Your task to perform on an android device: delete location history Image 0: 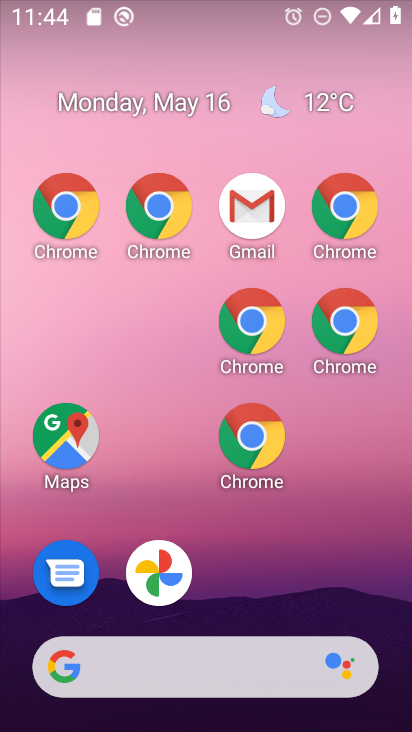
Step 0: drag from (400, 602) to (286, 295)
Your task to perform on an android device: delete location history Image 1: 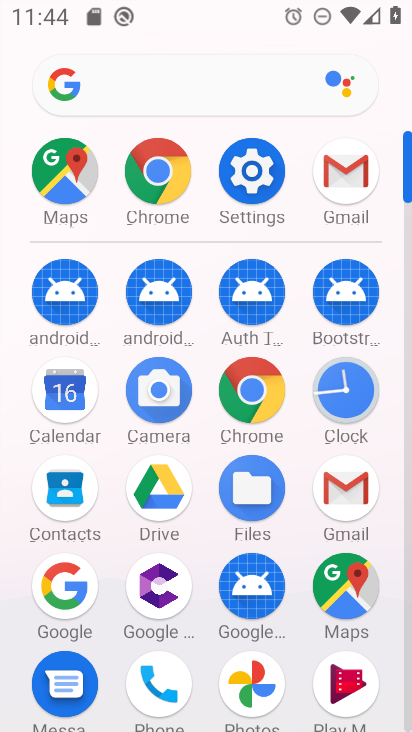
Step 1: click (341, 586)
Your task to perform on an android device: delete location history Image 2: 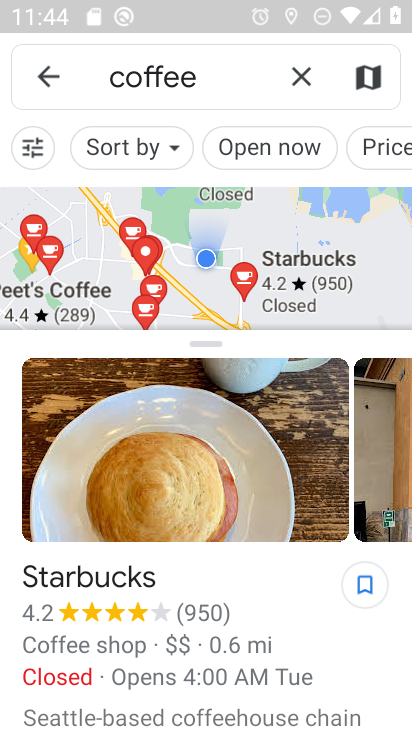
Step 2: click (51, 95)
Your task to perform on an android device: delete location history Image 3: 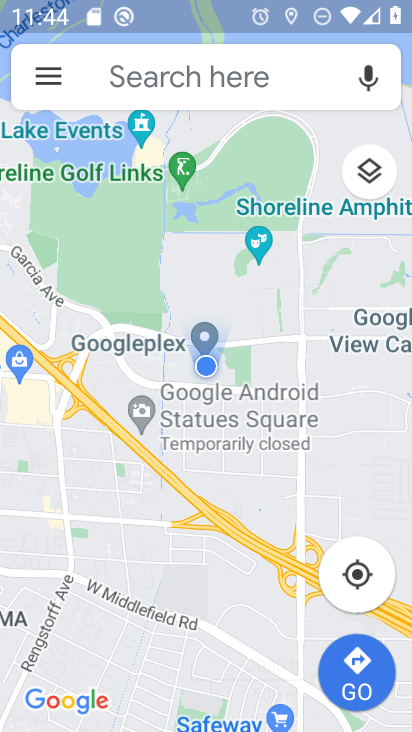
Step 3: click (45, 75)
Your task to perform on an android device: delete location history Image 4: 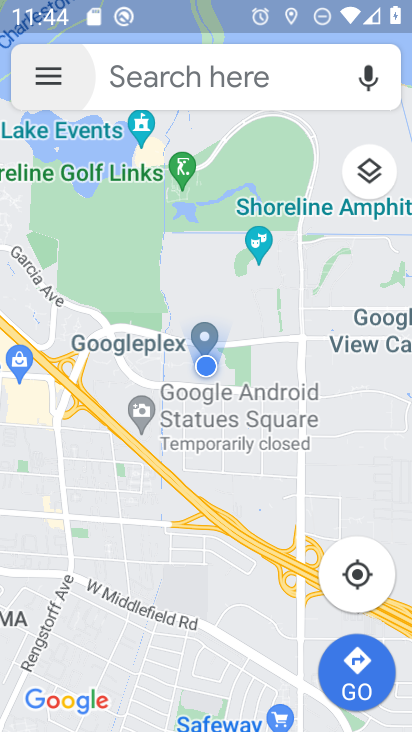
Step 4: click (46, 75)
Your task to perform on an android device: delete location history Image 5: 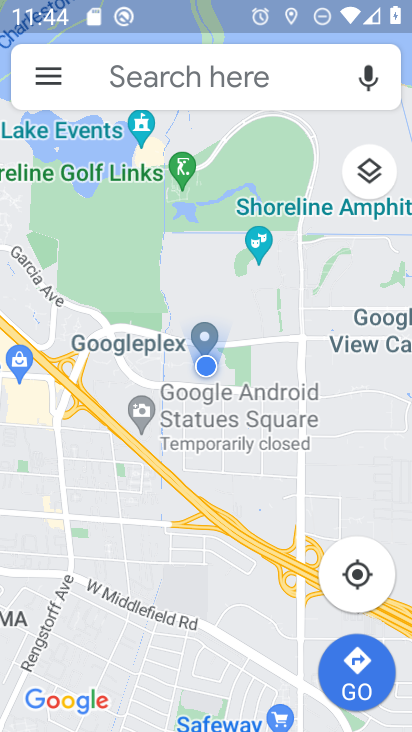
Step 5: click (46, 75)
Your task to perform on an android device: delete location history Image 6: 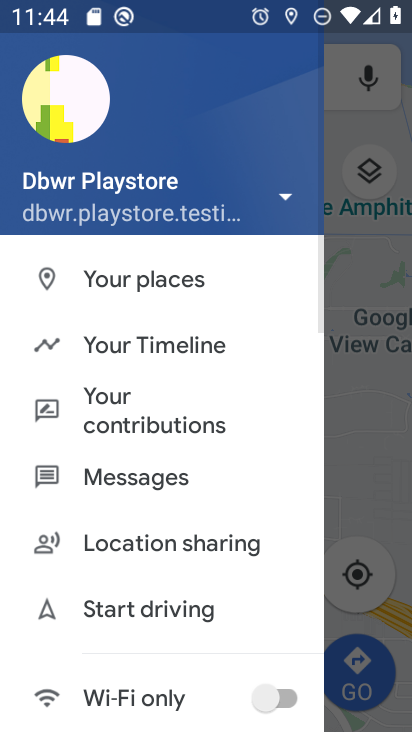
Step 6: click (155, 345)
Your task to perform on an android device: delete location history Image 7: 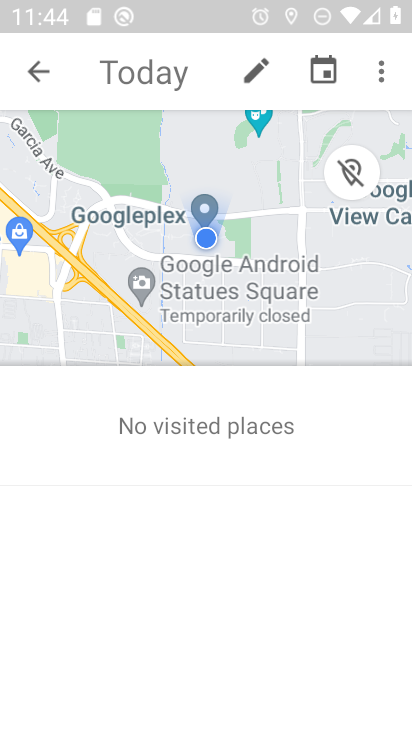
Step 7: click (378, 73)
Your task to perform on an android device: delete location history Image 8: 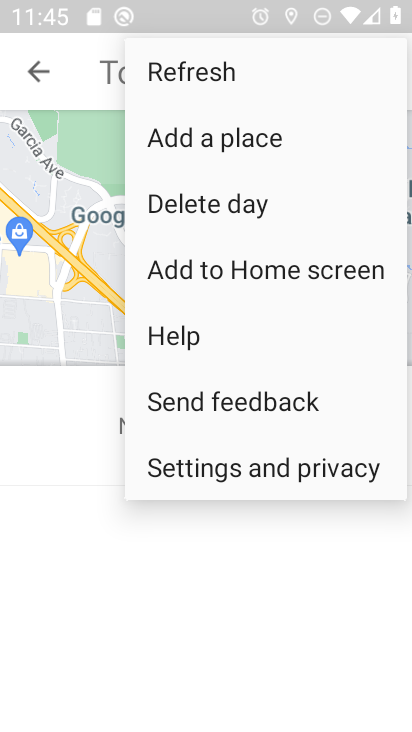
Step 8: click (252, 472)
Your task to perform on an android device: delete location history Image 9: 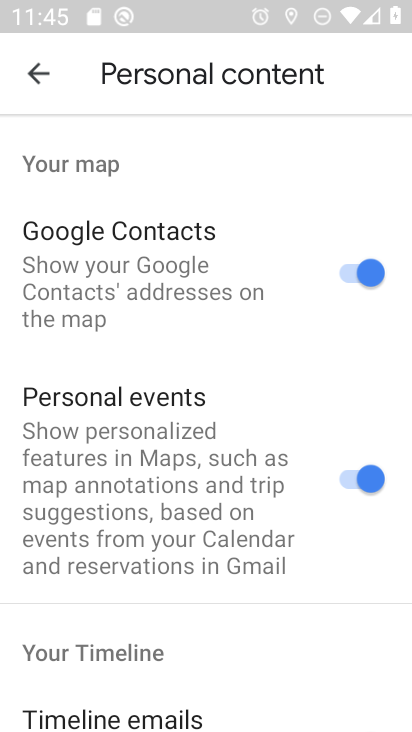
Step 9: drag from (212, 573) to (285, 78)
Your task to perform on an android device: delete location history Image 10: 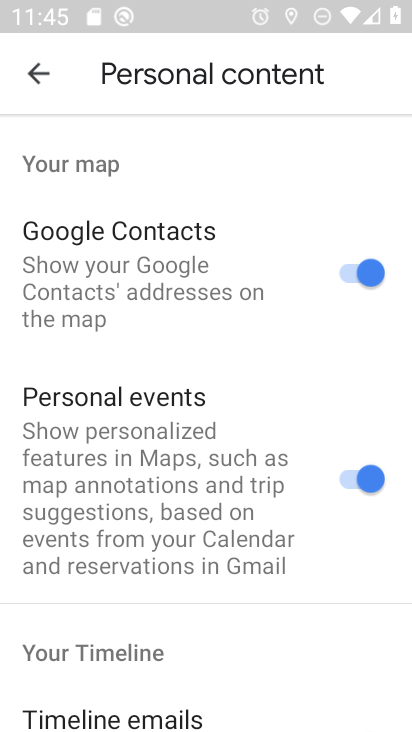
Step 10: drag from (194, 609) to (183, 218)
Your task to perform on an android device: delete location history Image 11: 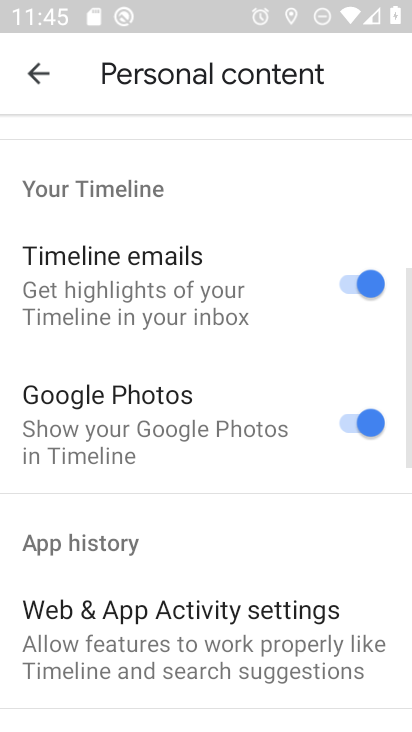
Step 11: drag from (165, 545) to (190, 171)
Your task to perform on an android device: delete location history Image 12: 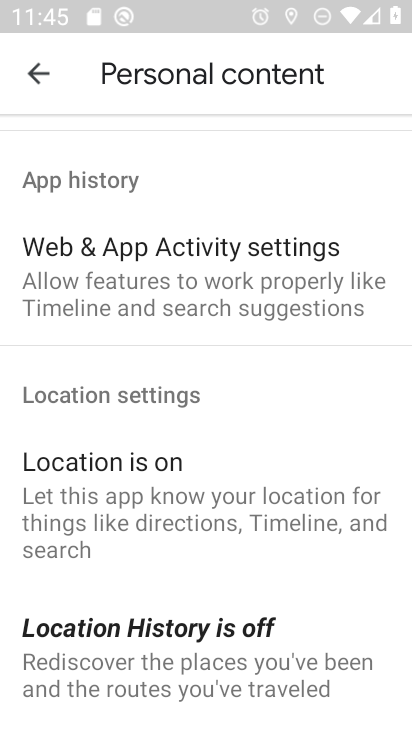
Step 12: drag from (207, 636) to (177, 205)
Your task to perform on an android device: delete location history Image 13: 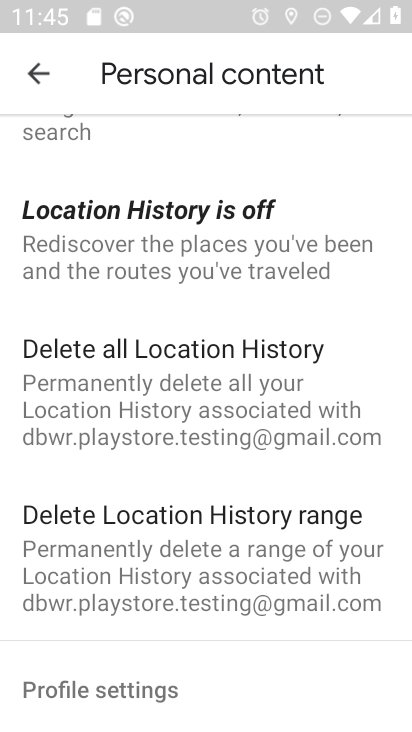
Step 13: drag from (101, 285) to (169, 473)
Your task to perform on an android device: delete location history Image 14: 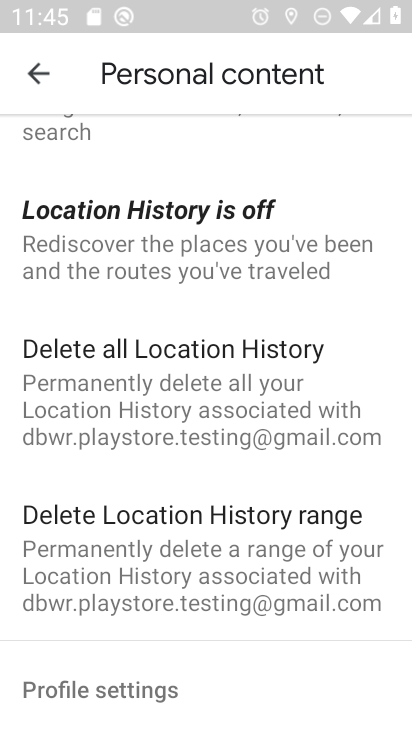
Step 14: click (145, 393)
Your task to perform on an android device: delete location history Image 15: 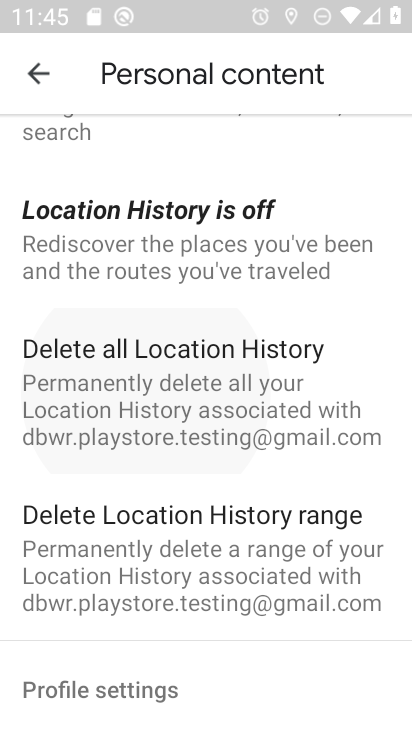
Step 15: click (146, 392)
Your task to perform on an android device: delete location history Image 16: 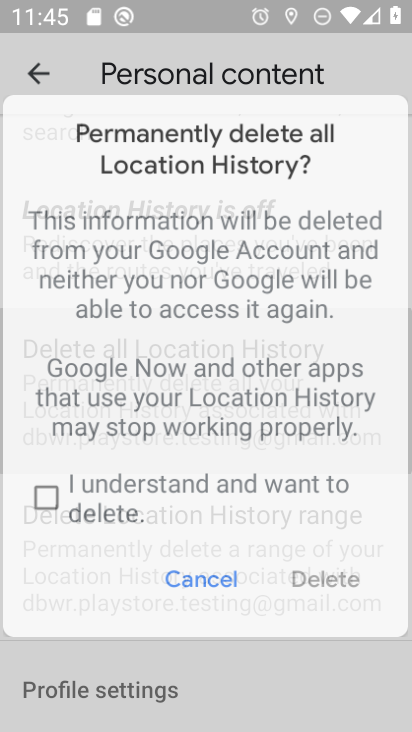
Step 16: click (146, 392)
Your task to perform on an android device: delete location history Image 17: 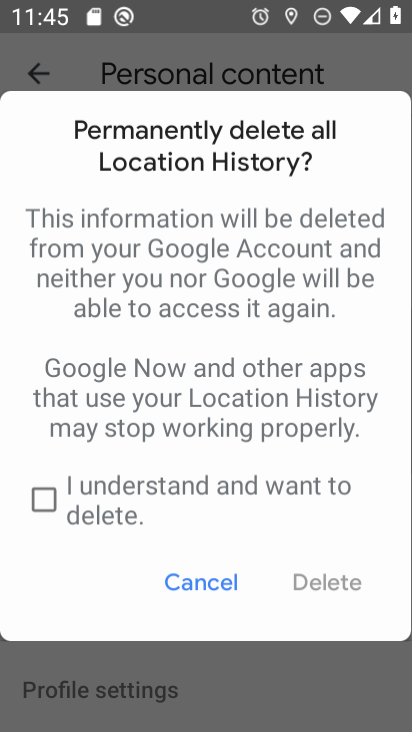
Step 17: click (145, 389)
Your task to perform on an android device: delete location history Image 18: 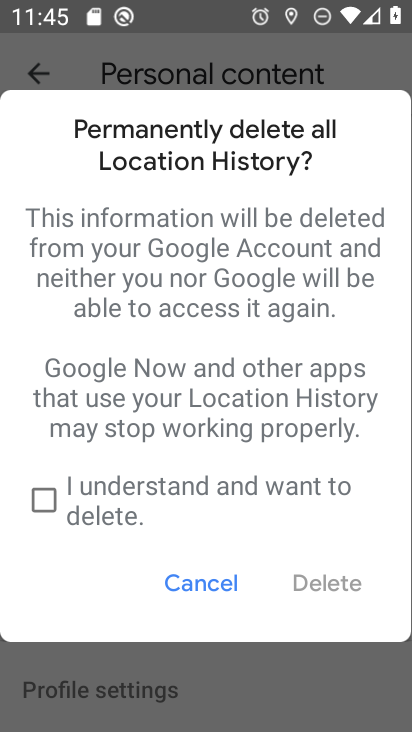
Step 18: click (145, 389)
Your task to perform on an android device: delete location history Image 19: 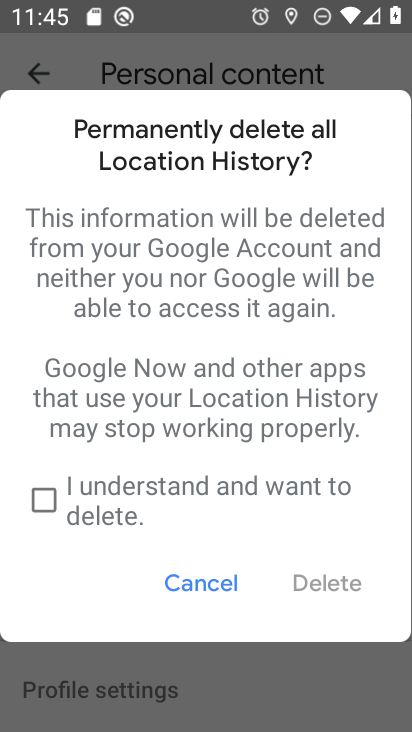
Step 19: click (45, 488)
Your task to perform on an android device: delete location history Image 20: 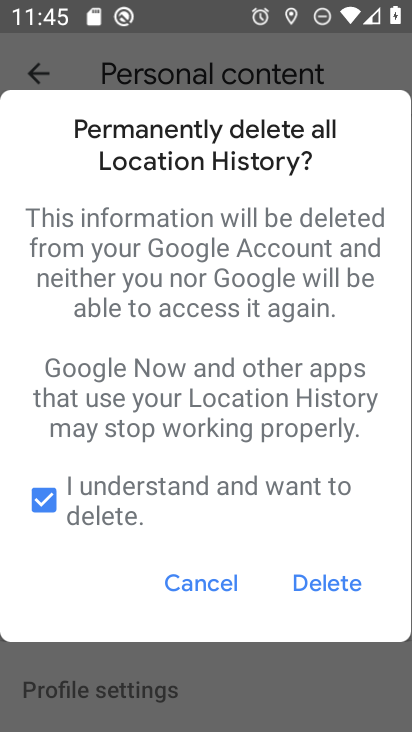
Step 20: click (309, 579)
Your task to perform on an android device: delete location history Image 21: 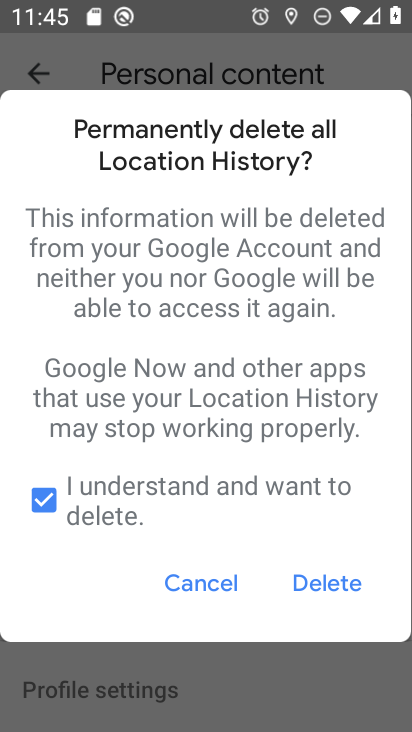
Step 21: click (323, 570)
Your task to perform on an android device: delete location history Image 22: 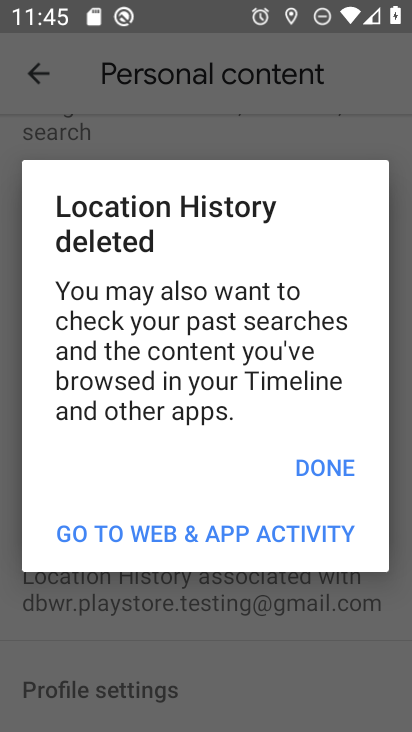
Step 22: task complete